Your task to perform on an android device: change the clock style Image 0: 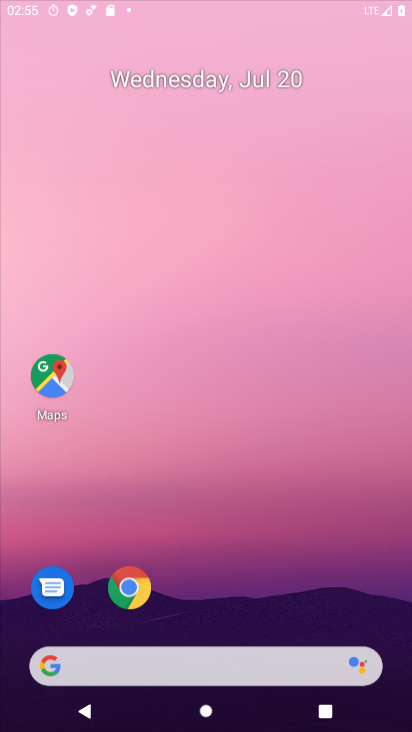
Step 0: click (313, 40)
Your task to perform on an android device: change the clock style Image 1: 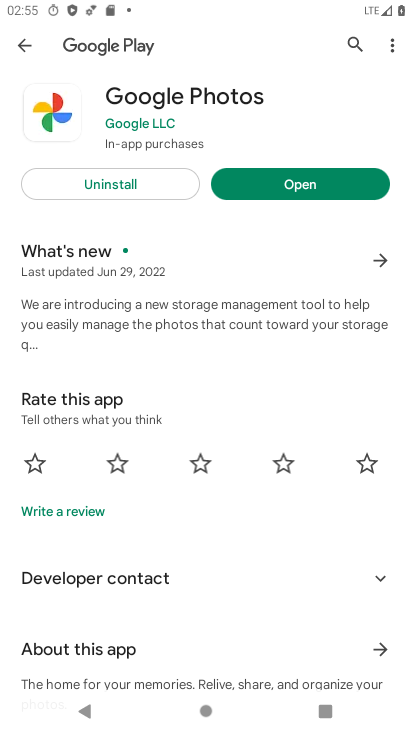
Step 1: press home button
Your task to perform on an android device: change the clock style Image 2: 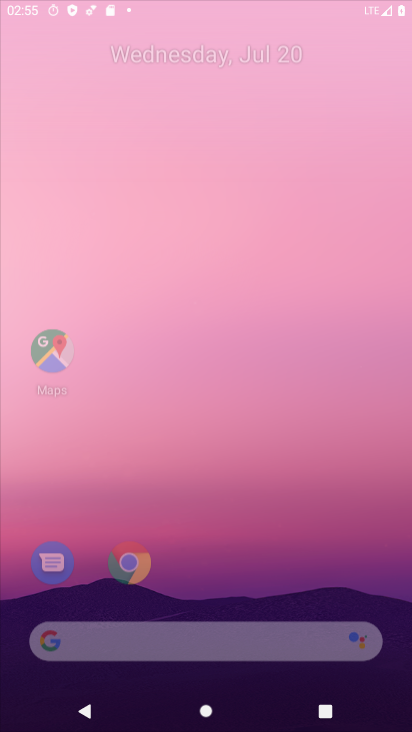
Step 2: drag from (202, 609) to (301, 31)
Your task to perform on an android device: change the clock style Image 3: 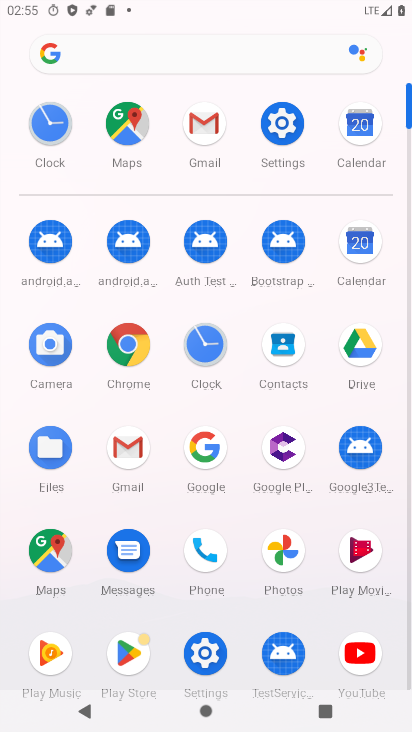
Step 3: click (202, 340)
Your task to perform on an android device: change the clock style Image 4: 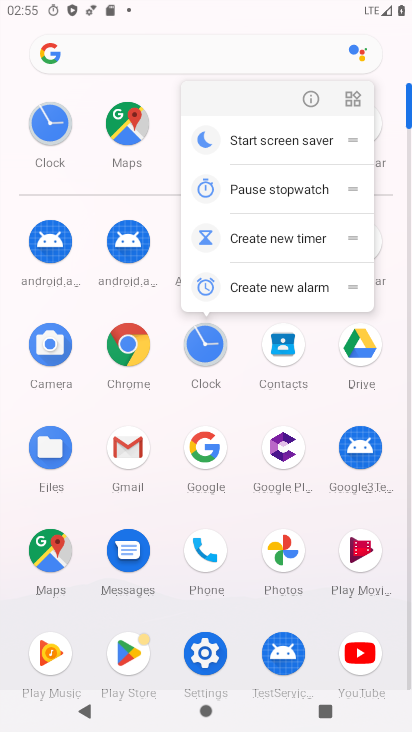
Step 4: click (318, 101)
Your task to perform on an android device: change the clock style Image 5: 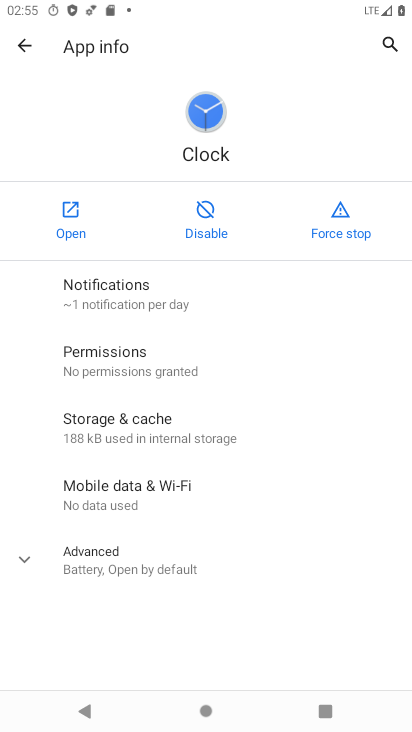
Step 5: click (72, 201)
Your task to perform on an android device: change the clock style Image 6: 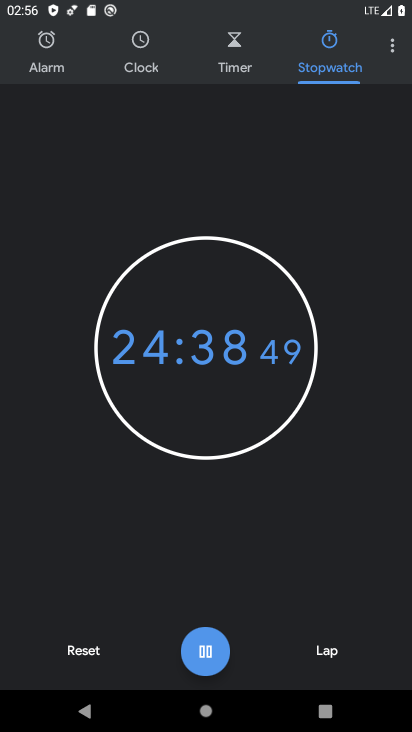
Step 6: drag from (394, 38) to (295, 90)
Your task to perform on an android device: change the clock style Image 7: 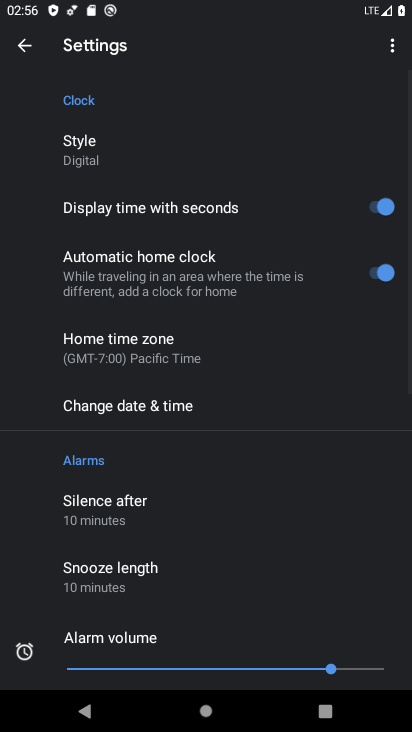
Step 7: click (62, 148)
Your task to perform on an android device: change the clock style Image 8: 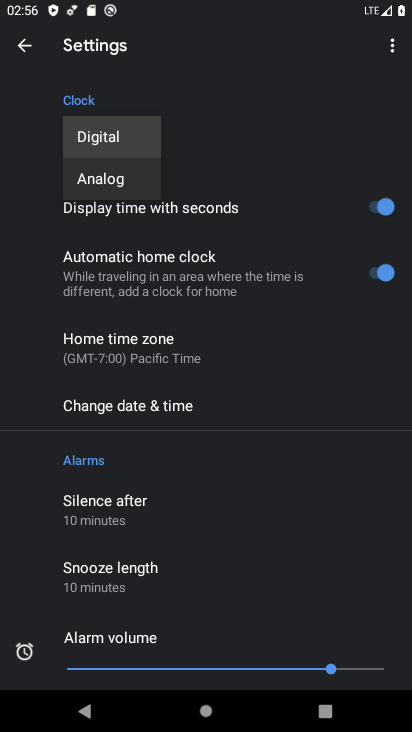
Step 8: click (122, 180)
Your task to perform on an android device: change the clock style Image 9: 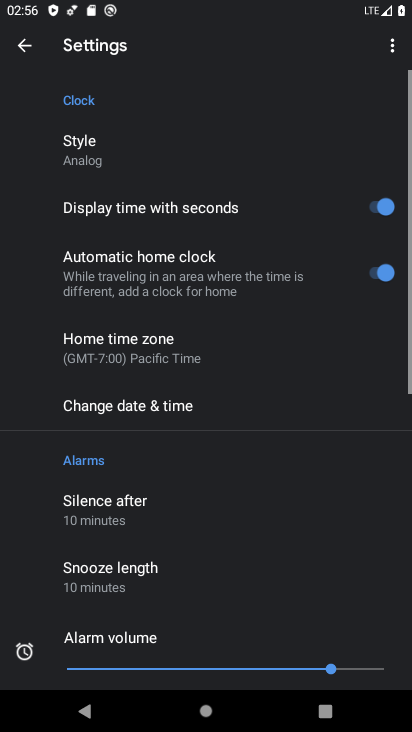
Step 9: task complete